Your task to perform on an android device: toggle translation in the chrome app Image 0: 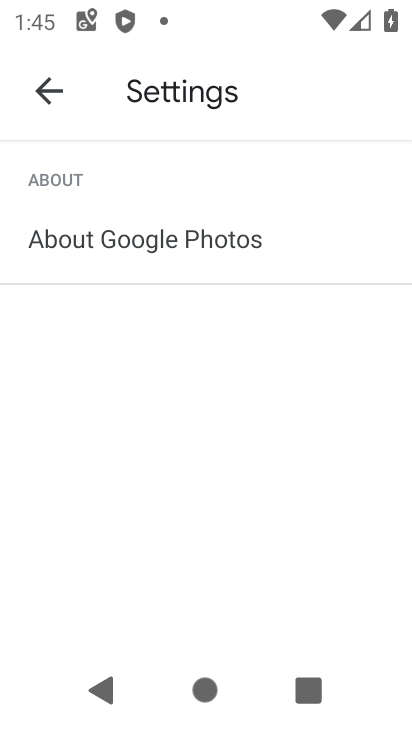
Step 0: press home button
Your task to perform on an android device: toggle translation in the chrome app Image 1: 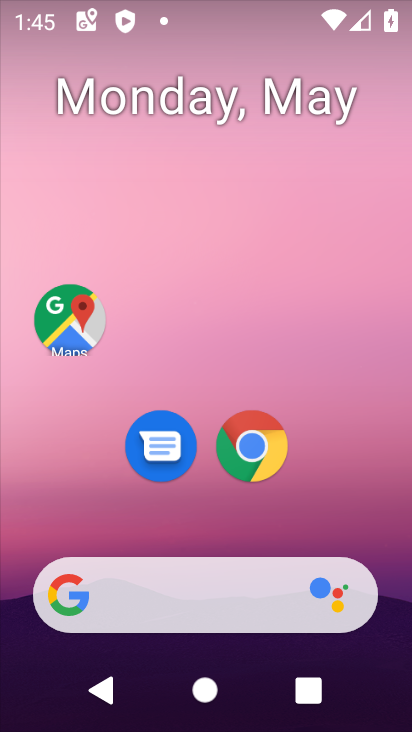
Step 1: drag from (132, 609) to (225, 307)
Your task to perform on an android device: toggle translation in the chrome app Image 2: 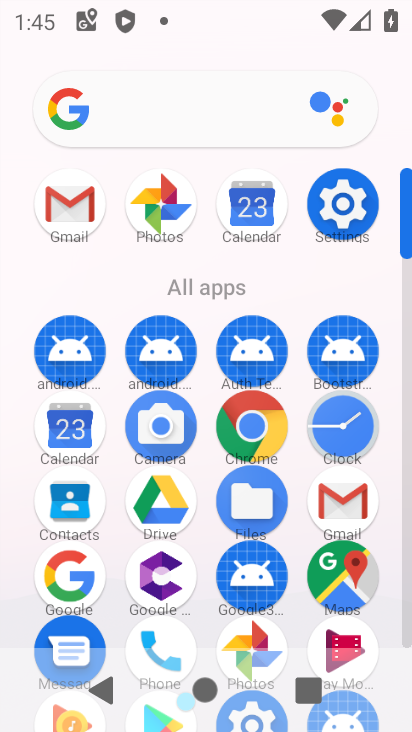
Step 2: click (242, 435)
Your task to perform on an android device: toggle translation in the chrome app Image 3: 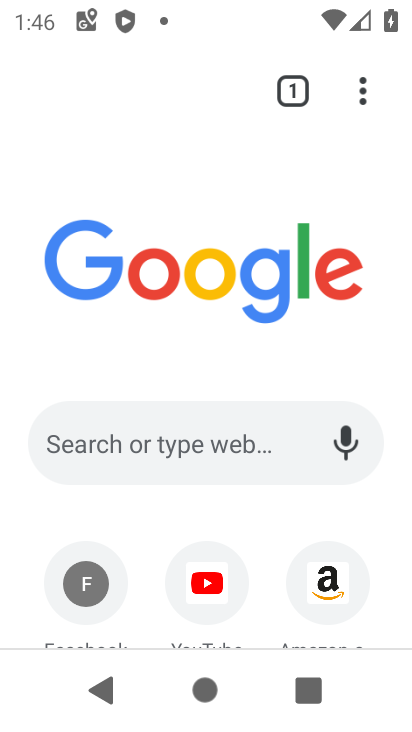
Step 3: drag from (367, 92) to (171, 475)
Your task to perform on an android device: toggle translation in the chrome app Image 4: 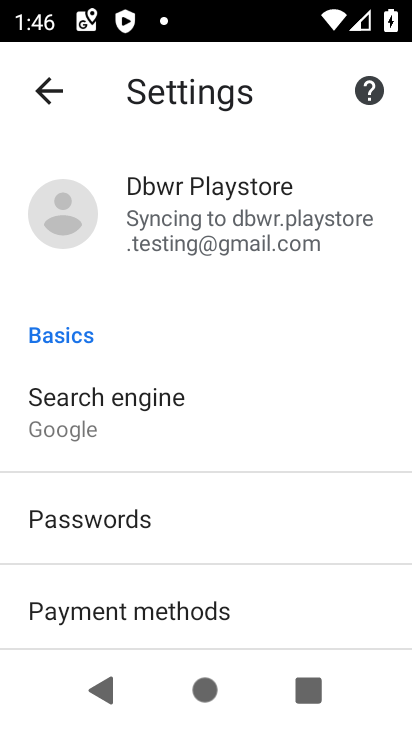
Step 4: drag from (215, 565) to (183, 80)
Your task to perform on an android device: toggle translation in the chrome app Image 5: 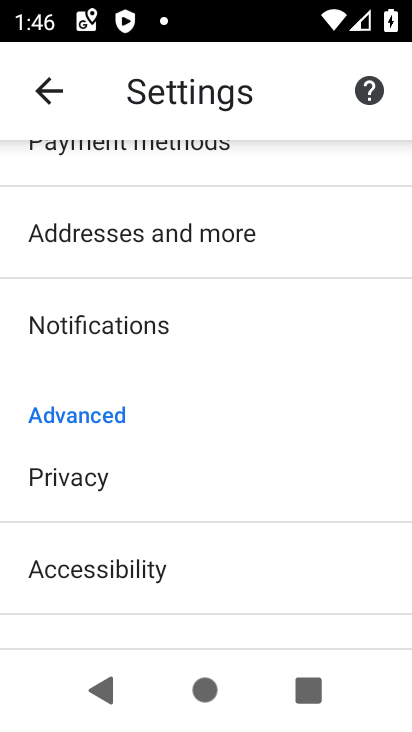
Step 5: drag from (217, 550) to (197, 193)
Your task to perform on an android device: toggle translation in the chrome app Image 6: 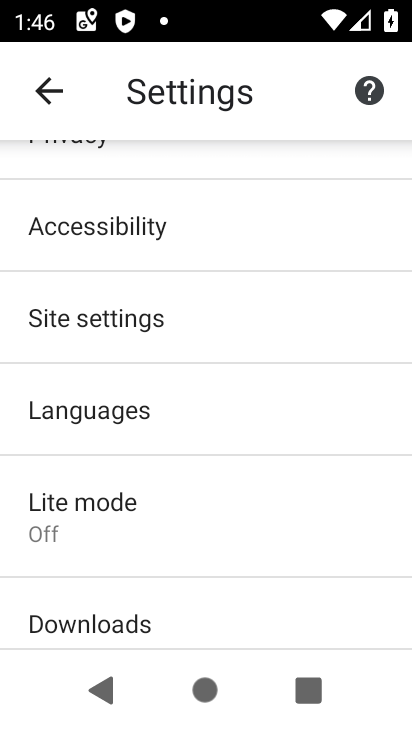
Step 6: click (158, 417)
Your task to perform on an android device: toggle translation in the chrome app Image 7: 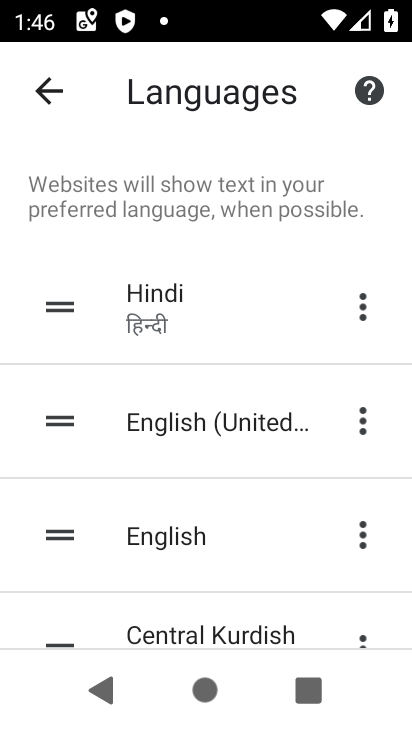
Step 7: drag from (306, 524) to (285, 82)
Your task to perform on an android device: toggle translation in the chrome app Image 8: 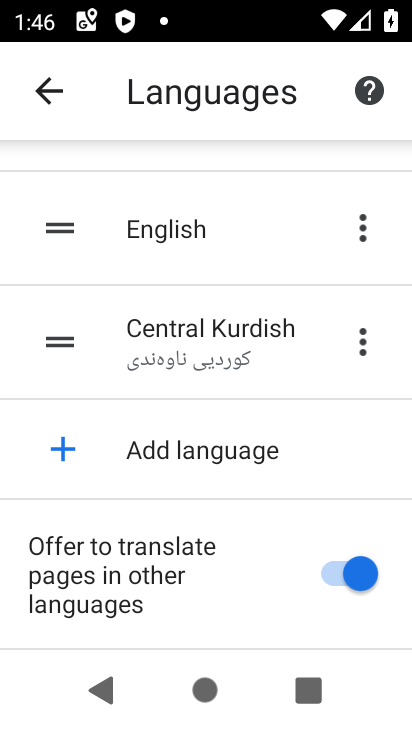
Step 8: click (328, 564)
Your task to perform on an android device: toggle translation in the chrome app Image 9: 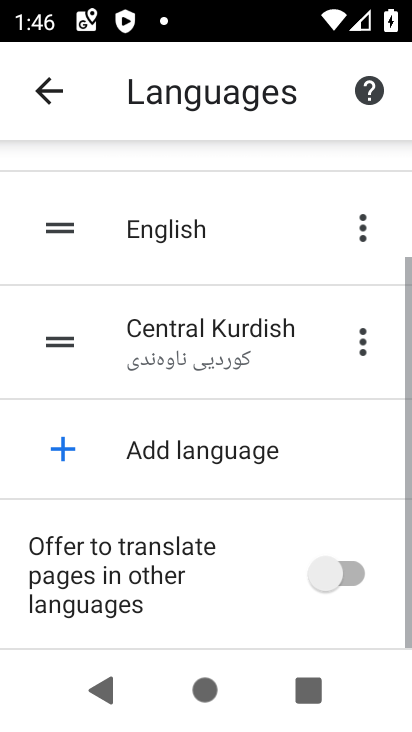
Step 9: task complete